Your task to perform on an android device: Open privacy settings Image 0: 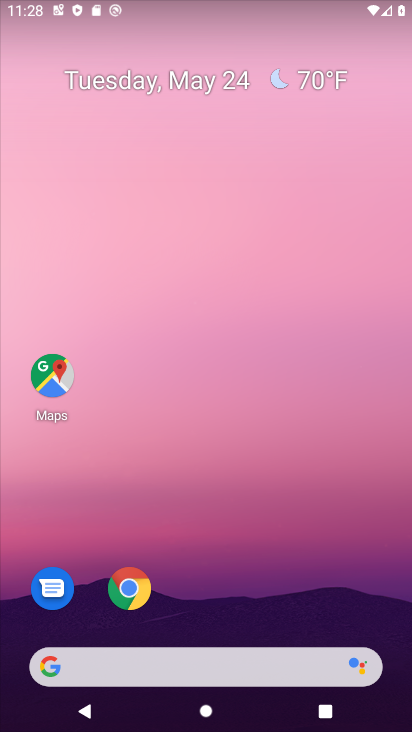
Step 0: drag from (212, 626) to (195, 55)
Your task to perform on an android device: Open privacy settings Image 1: 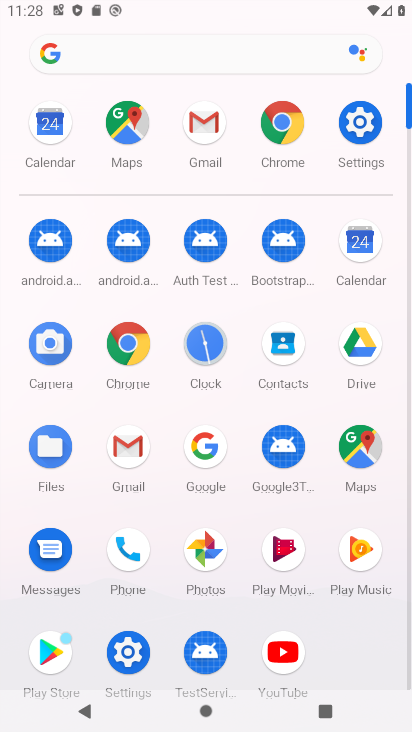
Step 1: click (358, 113)
Your task to perform on an android device: Open privacy settings Image 2: 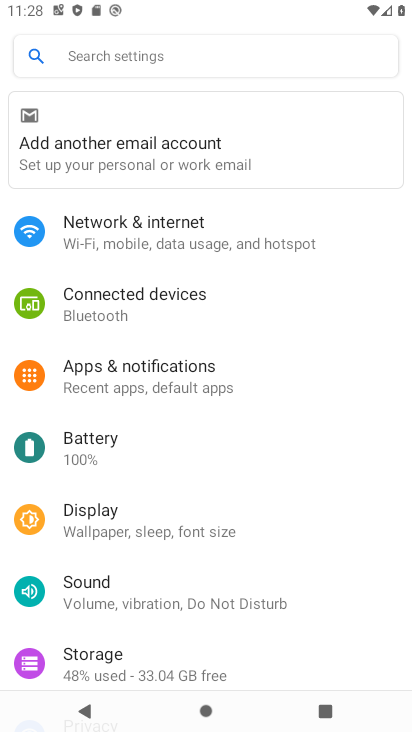
Step 2: drag from (174, 642) to (148, 207)
Your task to perform on an android device: Open privacy settings Image 3: 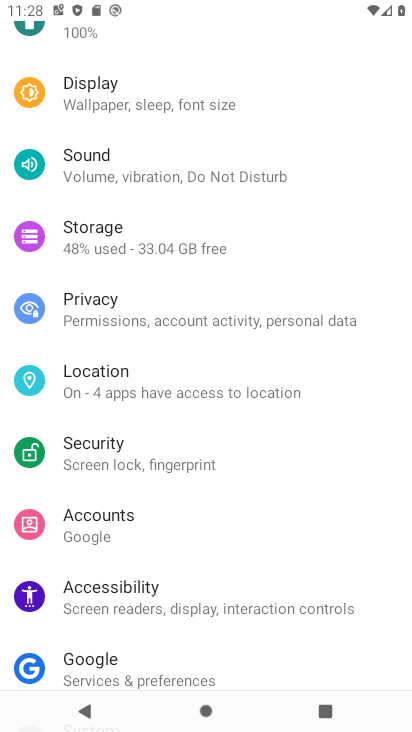
Step 3: click (124, 297)
Your task to perform on an android device: Open privacy settings Image 4: 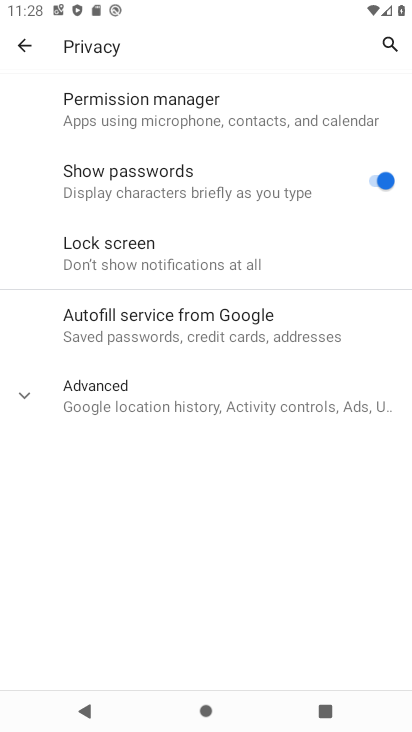
Step 4: click (24, 390)
Your task to perform on an android device: Open privacy settings Image 5: 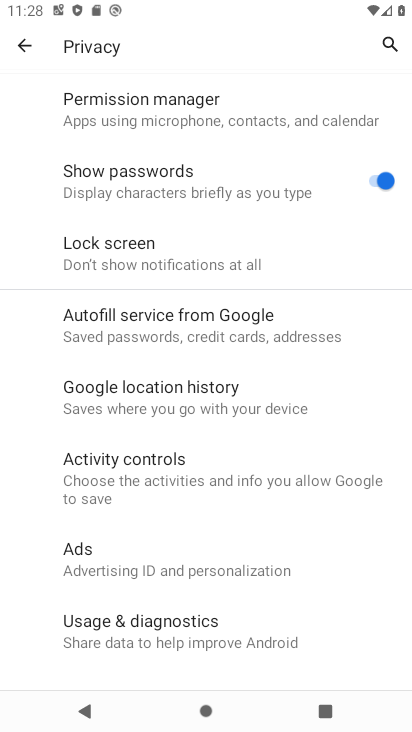
Step 5: task complete